Your task to perform on an android device: Open Chrome and go to the settings page Image 0: 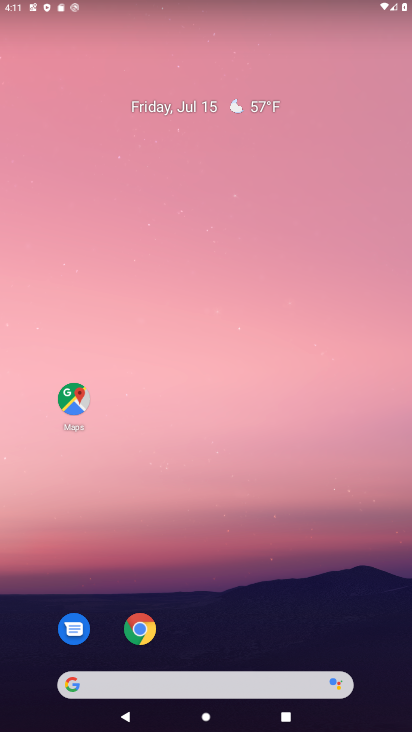
Step 0: press home button
Your task to perform on an android device: Open Chrome and go to the settings page Image 1: 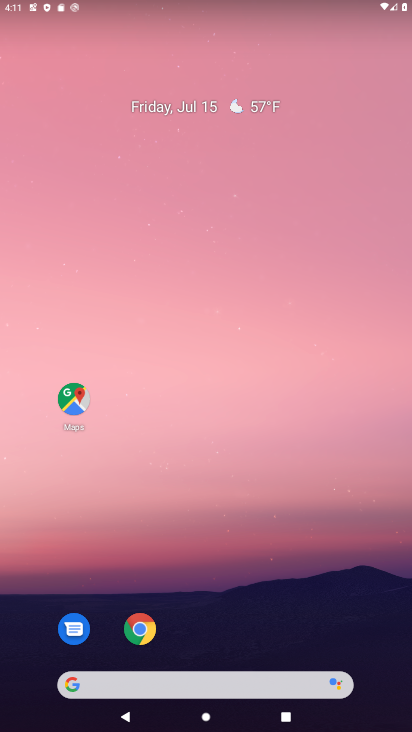
Step 1: drag from (233, 638) to (287, 111)
Your task to perform on an android device: Open Chrome and go to the settings page Image 2: 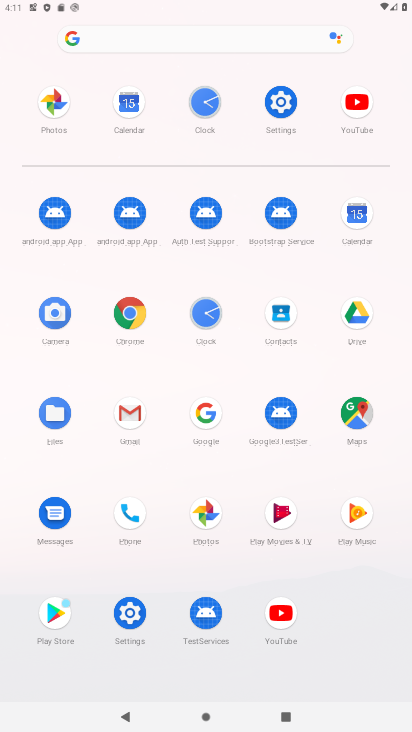
Step 2: click (127, 310)
Your task to perform on an android device: Open Chrome and go to the settings page Image 3: 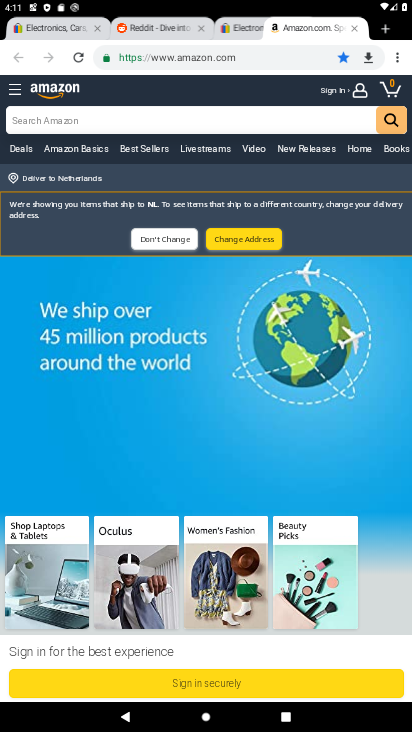
Step 3: task complete